Your task to perform on an android device: Play the last video I watched on Youtube Image 0: 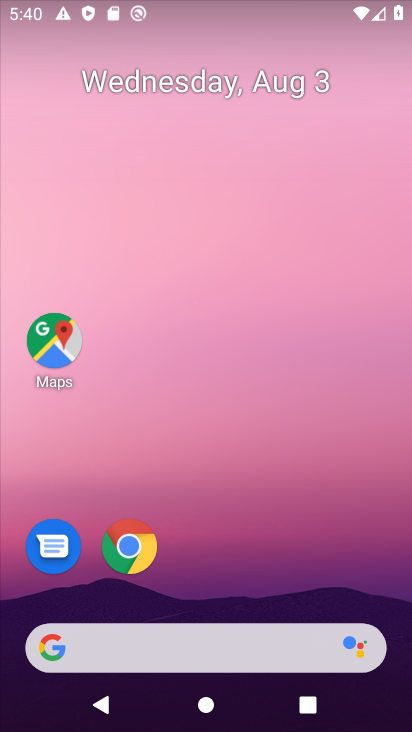
Step 0: drag from (257, 614) to (368, 308)
Your task to perform on an android device: Play the last video I watched on Youtube Image 1: 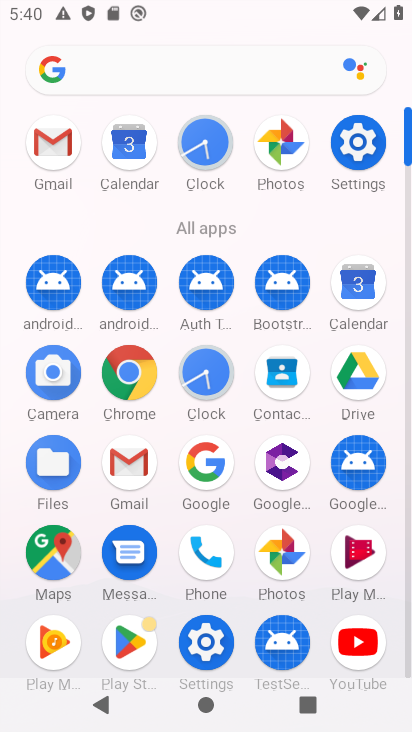
Step 1: click (344, 655)
Your task to perform on an android device: Play the last video I watched on Youtube Image 2: 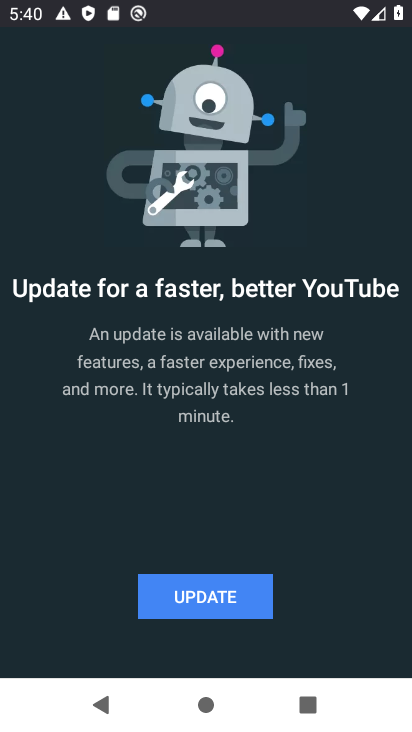
Step 2: click (217, 603)
Your task to perform on an android device: Play the last video I watched on Youtube Image 3: 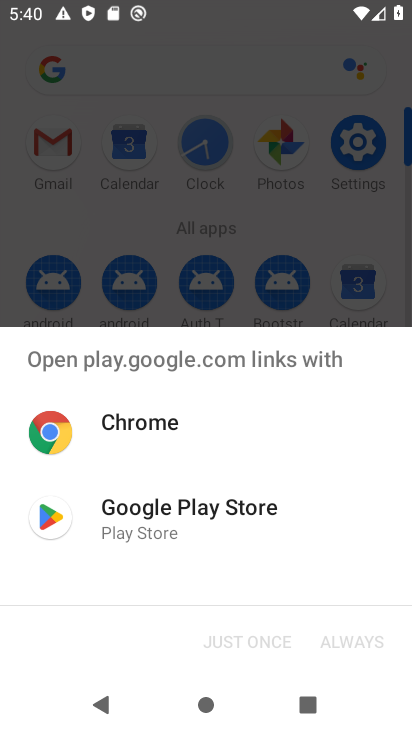
Step 3: click (124, 513)
Your task to perform on an android device: Play the last video I watched on Youtube Image 4: 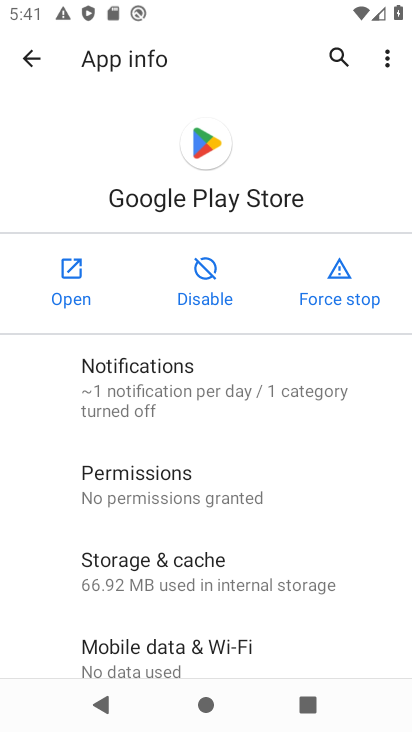
Step 4: click (34, 64)
Your task to perform on an android device: Play the last video I watched on Youtube Image 5: 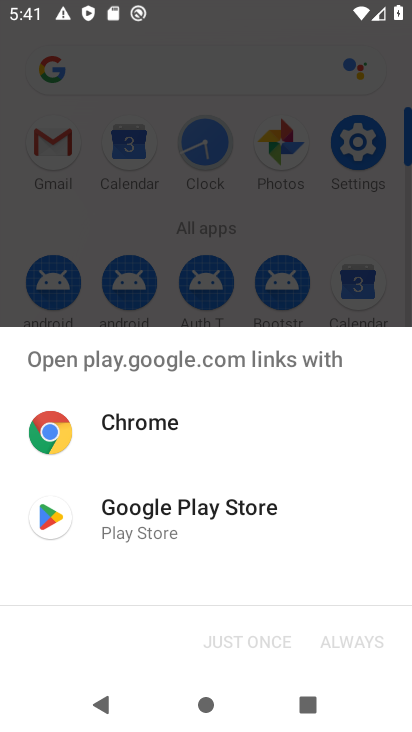
Step 5: click (197, 516)
Your task to perform on an android device: Play the last video I watched on Youtube Image 6: 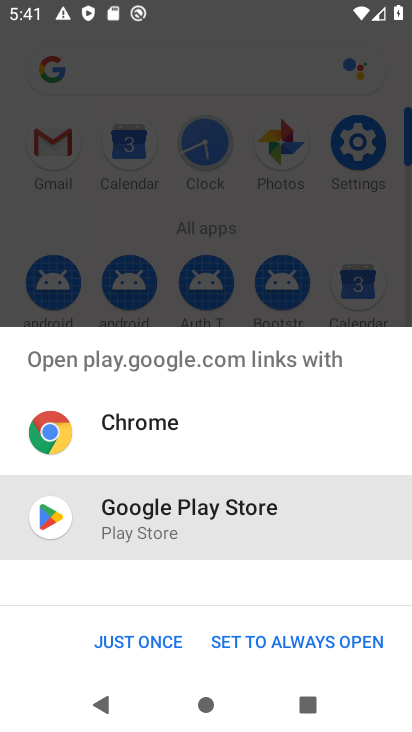
Step 6: click (135, 650)
Your task to perform on an android device: Play the last video I watched on Youtube Image 7: 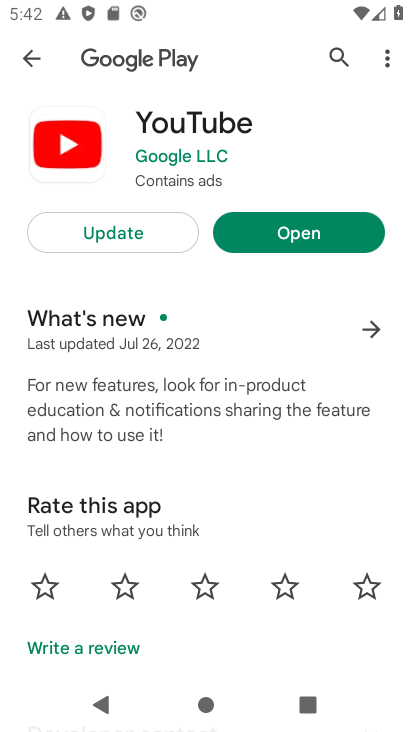
Step 7: click (90, 229)
Your task to perform on an android device: Play the last video I watched on Youtube Image 8: 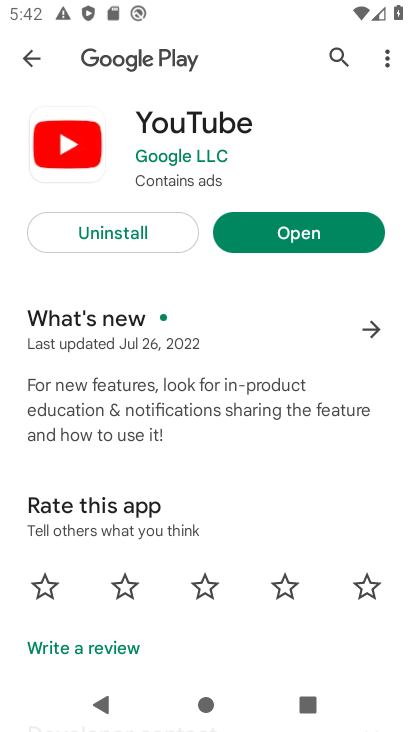
Step 8: click (319, 234)
Your task to perform on an android device: Play the last video I watched on Youtube Image 9: 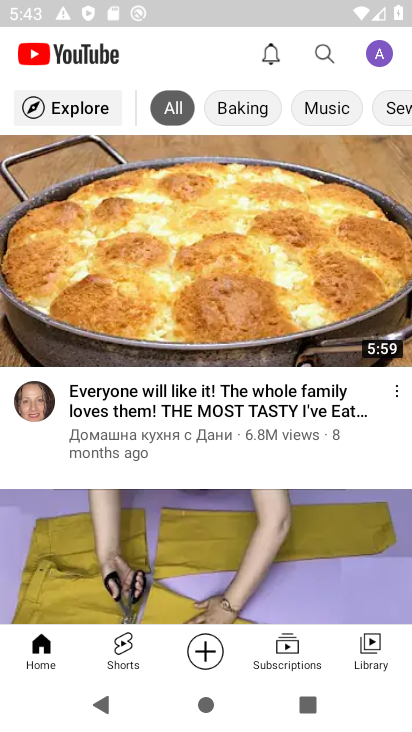
Step 9: click (380, 644)
Your task to perform on an android device: Play the last video I watched on Youtube Image 10: 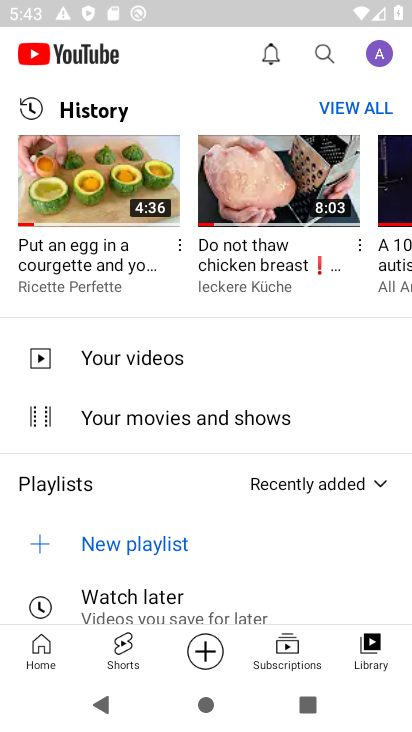
Step 10: click (127, 165)
Your task to perform on an android device: Play the last video I watched on Youtube Image 11: 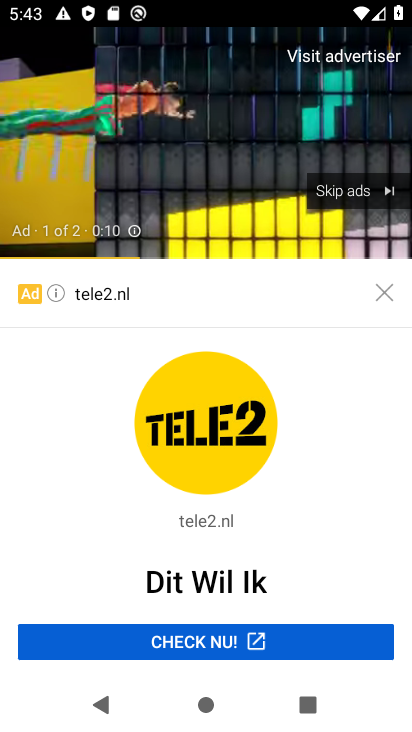
Step 11: click (344, 189)
Your task to perform on an android device: Play the last video I watched on Youtube Image 12: 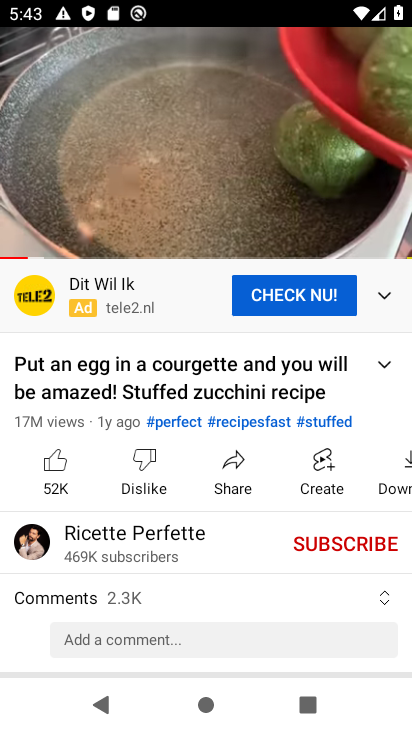
Step 12: task complete